Your task to perform on an android device: Toggle the flashlight Image 0: 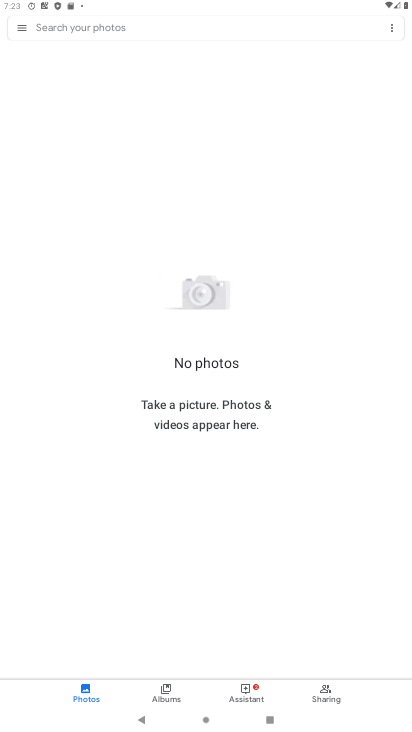
Step 0: press home button
Your task to perform on an android device: Toggle the flashlight Image 1: 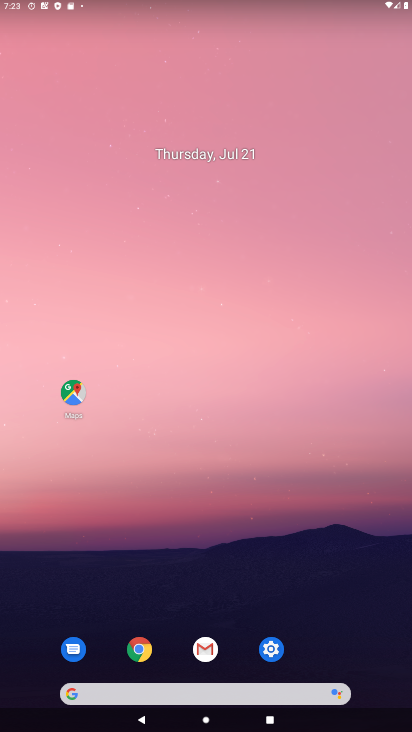
Step 1: click (260, 650)
Your task to perform on an android device: Toggle the flashlight Image 2: 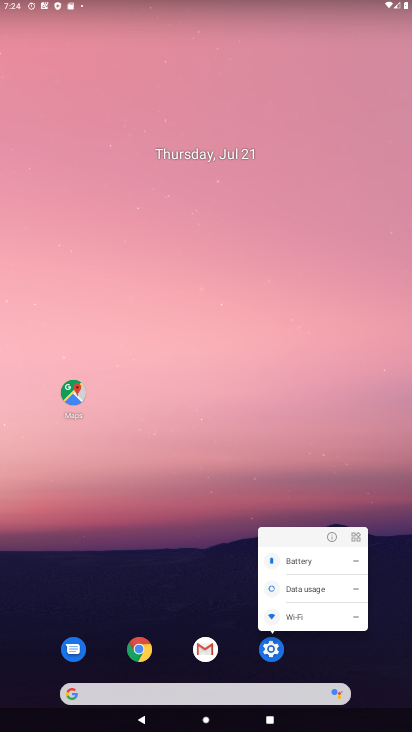
Step 2: click (268, 649)
Your task to perform on an android device: Toggle the flashlight Image 3: 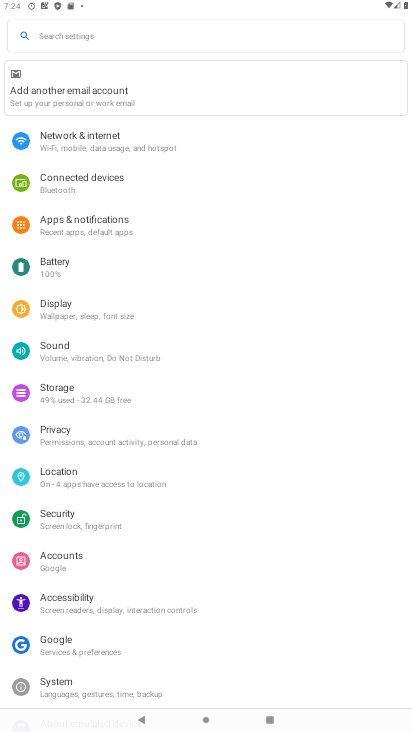
Step 3: click (69, 33)
Your task to perform on an android device: Toggle the flashlight Image 4: 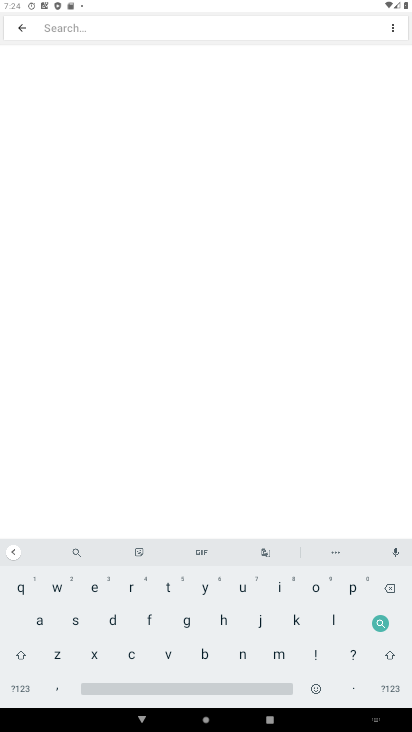
Step 4: click (147, 623)
Your task to perform on an android device: Toggle the flashlight Image 5: 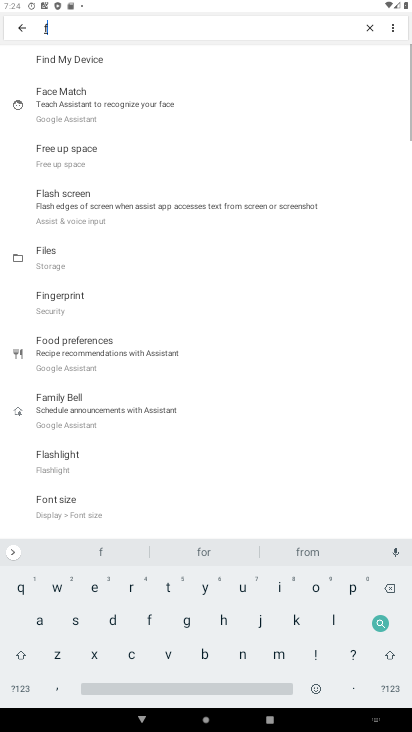
Step 5: click (330, 615)
Your task to perform on an android device: Toggle the flashlight Image 6: 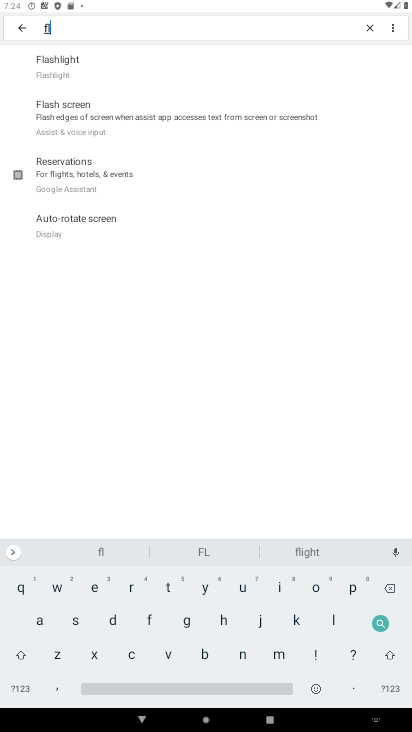
Step 6: click (94, 76)
Your task to perform on an android device: Toggle the flashlight Image 7: 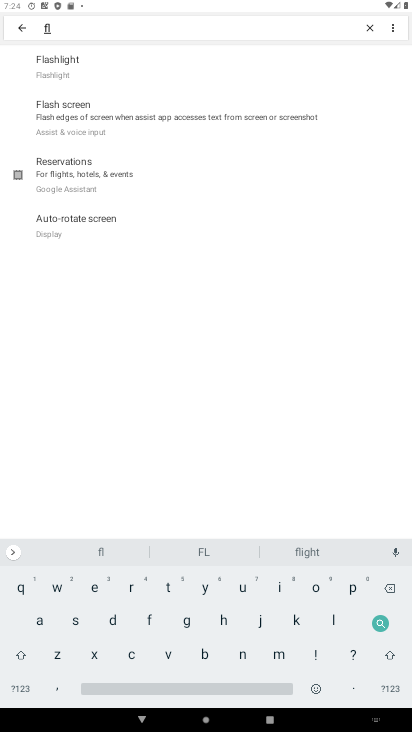
Step 7: click (94, 76)
Your task to perform on an android device: Toggle the flashlight Image 8: 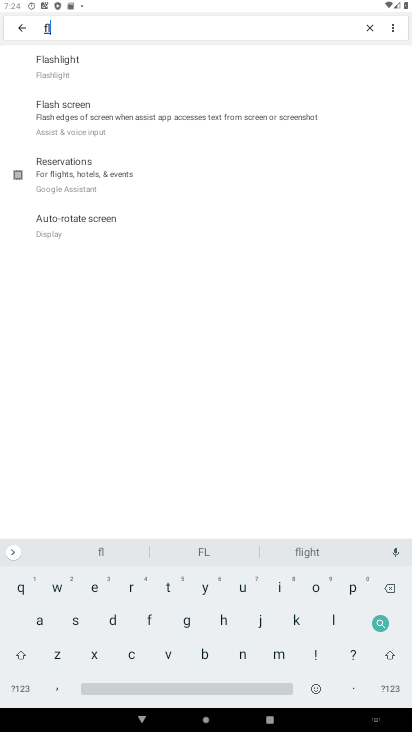
Step 8: task complete